Your task to perform on an android device: open the mobile data screen to see how much data has been used Image 0: 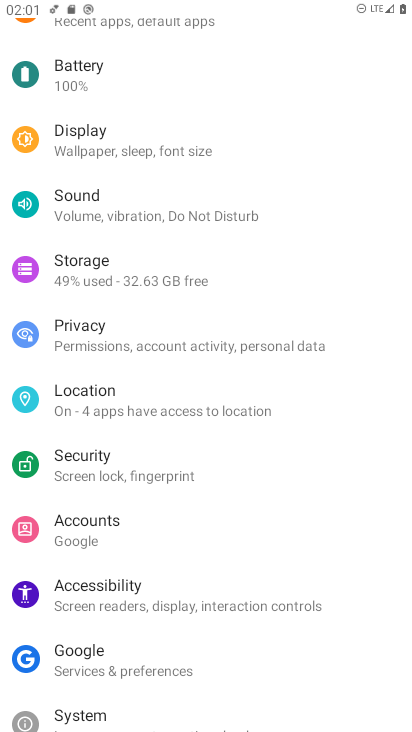
Step 0: press home button
Your task to perform on an android device: open the mobile data screen to see how much data has been used Image 1: 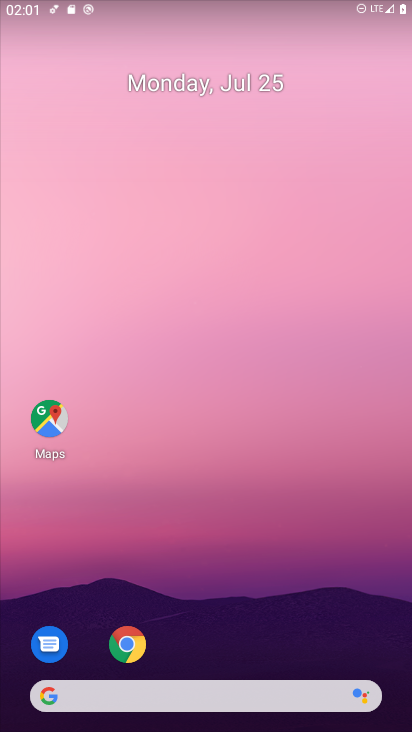
Step 1: drag from (205, 723) to (205, 414)
Your task to perform on an android device: open the mobile data screen to see how much data has been used Image 2: 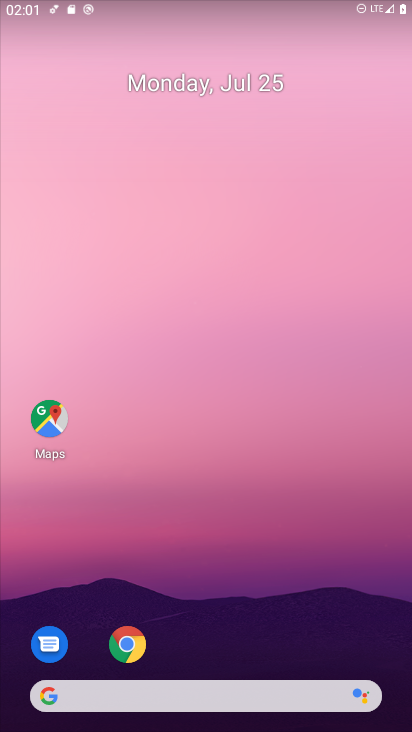
Step 2: drag from (227, 712) to (236, 426)
Your task to perform on an android device: open the mobile data screen to see how much data has been used Image 3: 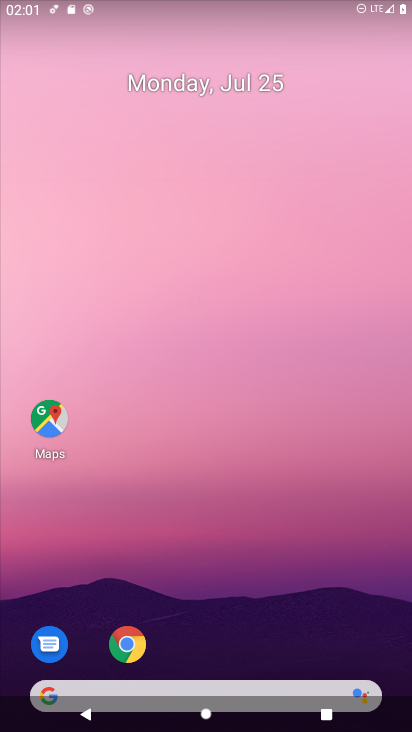
Step 3: drag from (226, 729) to (226, 145)
Your task to perform on an android device: open the mobile data screen to see how much data has been used Image 4: 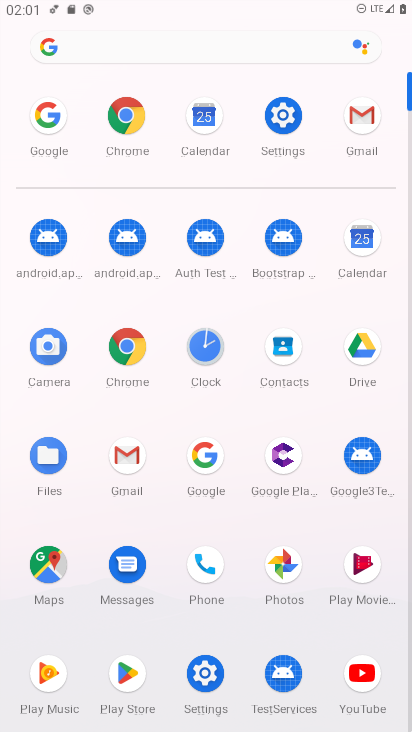
Step 4: click (282, 122)
Your task to perform on an android device: open the mobile data screen to see how much data has been used Image 5: 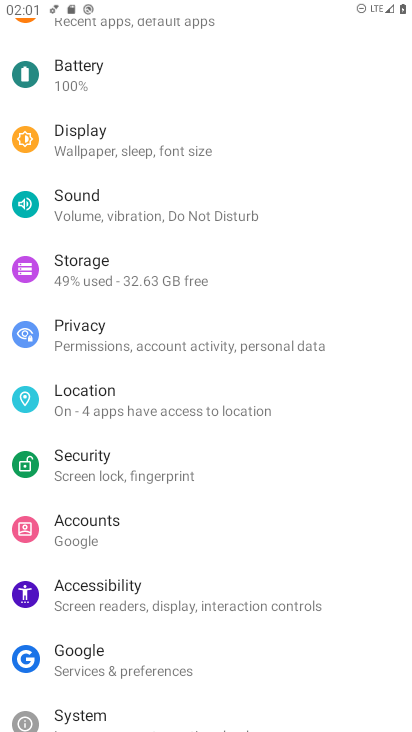
Step 5: drag from (218, 116) to (259, 579)
Your task to perform on an android device: open the mobile data screen to see how much data has been used Image 6: 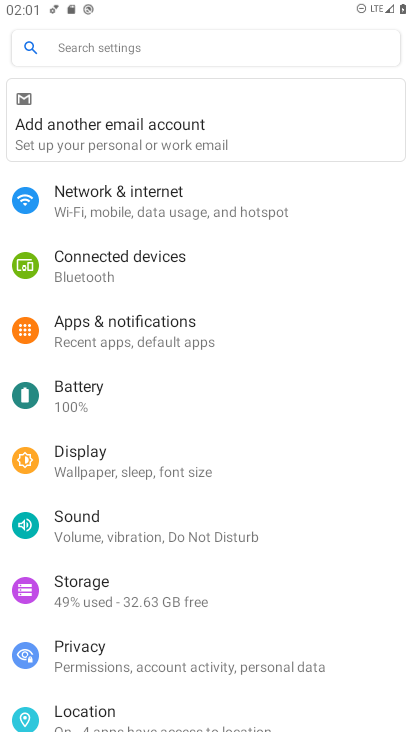
Step 6: click (136, 205)
Your task to perform on an android device: open the mobile data screen to see how much data has been used Image 7: 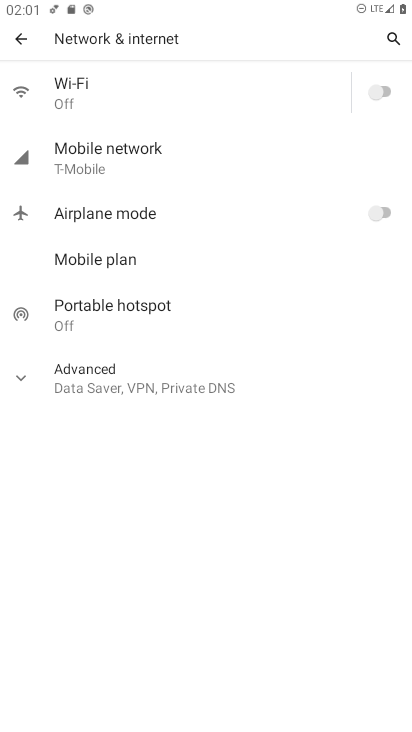
Step 7: click (103, 153)
Your task to perform on an android device: open the mobile data screen to see how much data has been used Image 8: 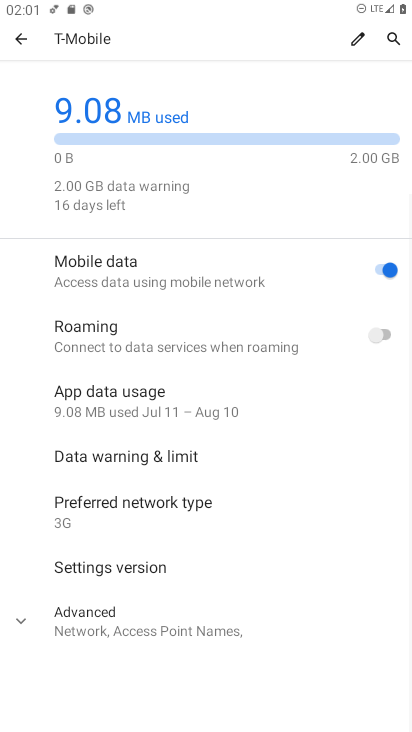
Step 8: click (100, 388)
Your task to perform on an android device: open the mobile data screen to see how much data has been used Image 9: 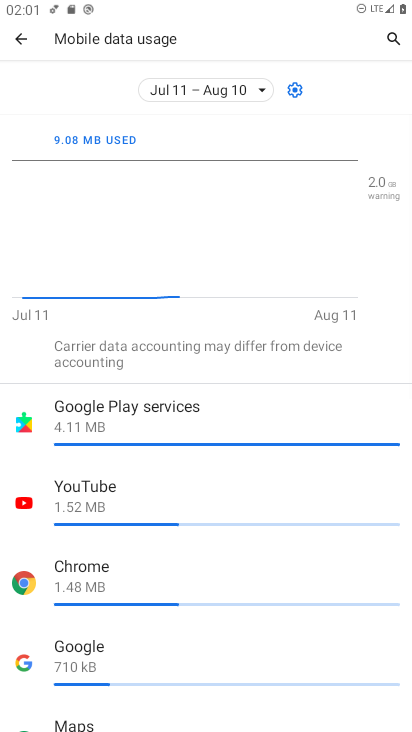
Step 9: task complete